Your task to perform on an android device: empty trash in the gmail app Image 0: 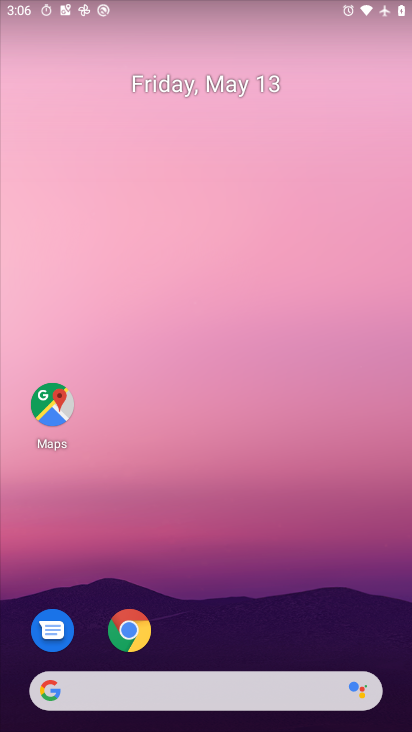
Step 0: drag from (260, 553) to (259, 137)
Your task to perform on an android device: empty trash in the gmail app Image 1: 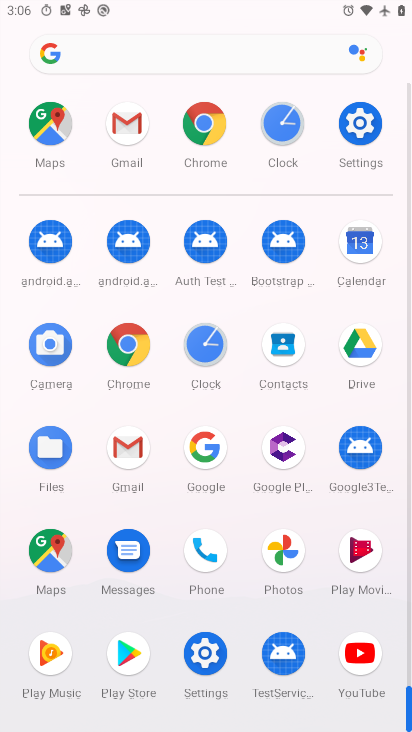
Step 1: click (138, 458)
Your task to perform on an android device: empty trash in the gmail app Image 2: 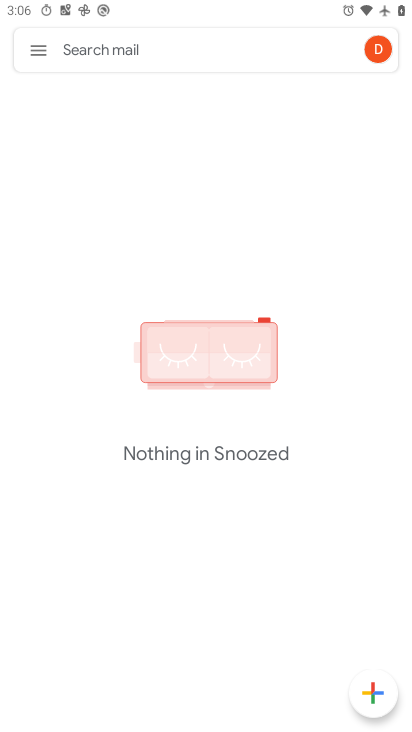
Step 2: click (32, 55)
Your task to perform on an android device: empty trash in the gmail app Image 3: 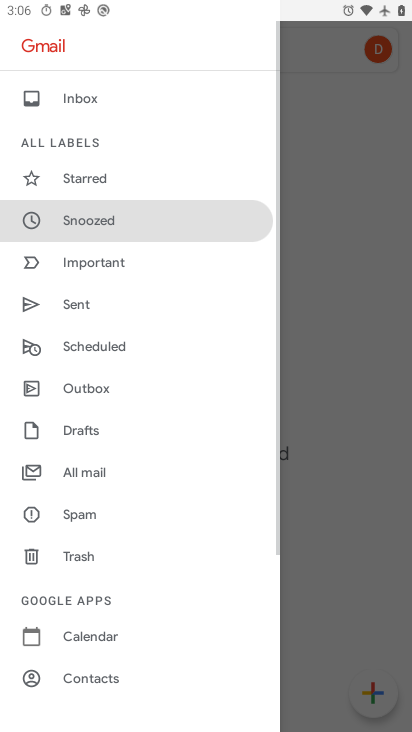
Step 3: click (114, 567)
Your task to perform on an android device: empty trash in the gmail app Image 4: 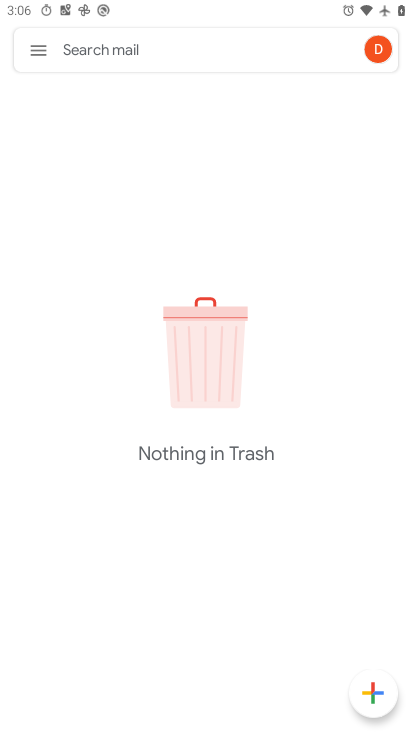
Step 4: task complete